Your task to perform on an android device: turn on bluetooth scan Image 0: 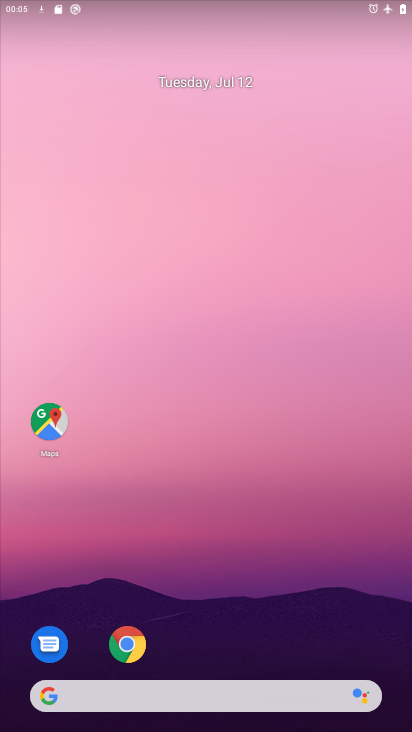
Step 0: drag from (248, 641) to (238, 314)
Your task to perform on an android device: turn on bluetooth scan Image 1: 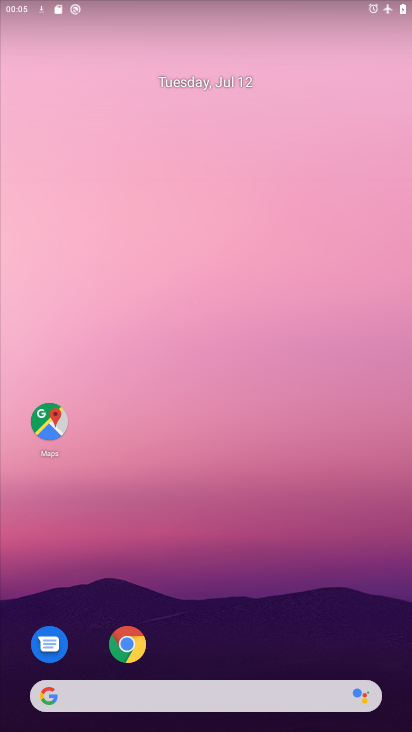
Step 1: drag from (234, 677) to (234, 275)
Your task to perform on an android device: turn on bluetooth scan Image 2: 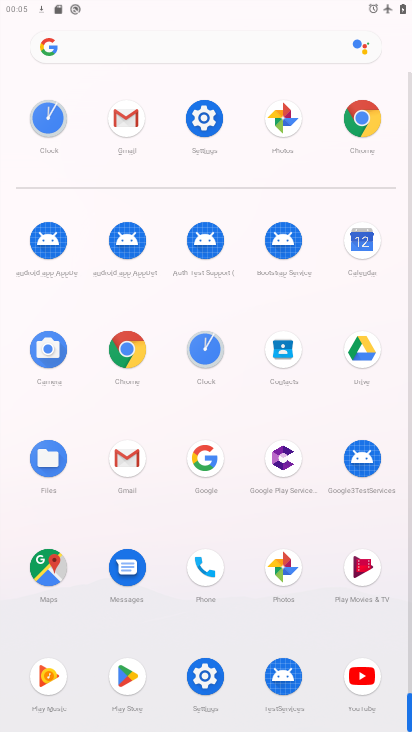
Step 2: click (197, 121)
Your task to perform on an android device: turn on bluetooth scan Image 3: 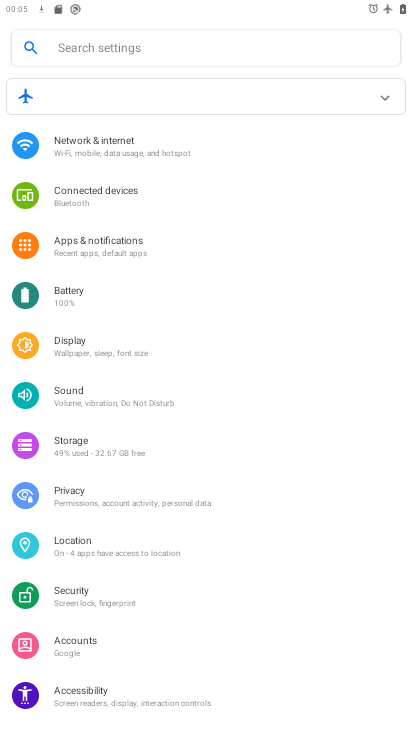
Step 3: click (168, 50)
Your task to perform on an android device: turn on bluetooth scan Image 4: 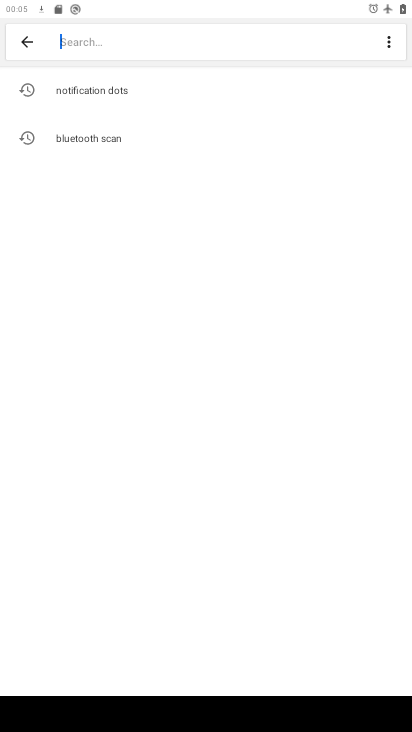
Step 4: click (105, 134)
Your task to perform on an android device: turn on bluetooth scan Image 5: 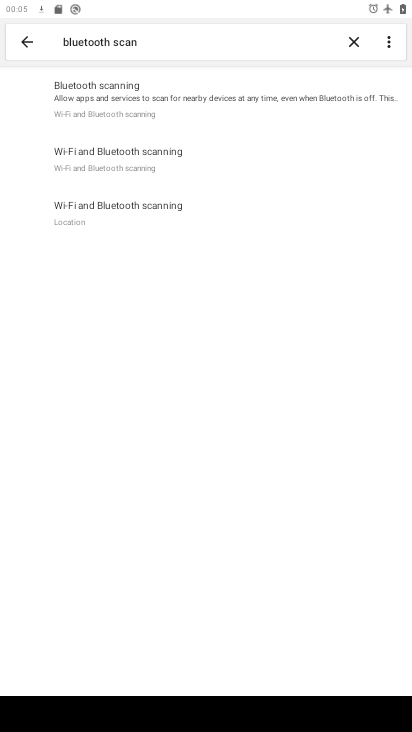
Step 5: click (186, 80)
Your task to perform on an android device: turn on bluetooth scan Image 6: 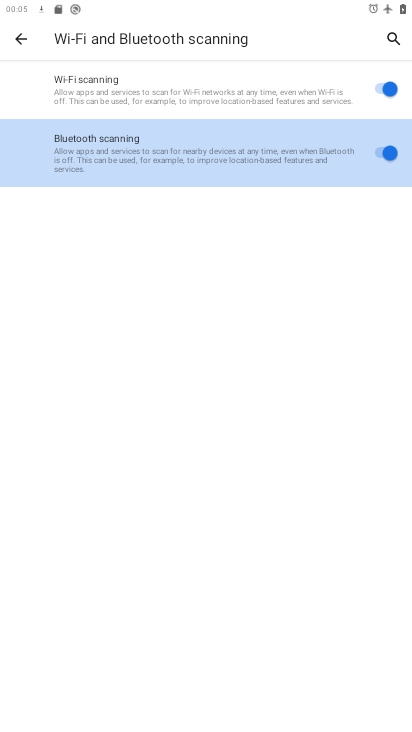
Step 6: task complete